Your task to perform on an android device: Open Chrome and go to settings Image 0: 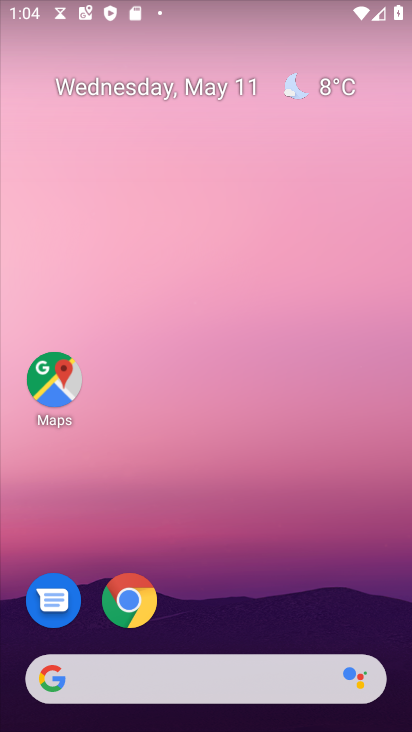
Step 0: click (136, 594)
Your task to perform on an android device: Open Chrome and go to settings Image 1: 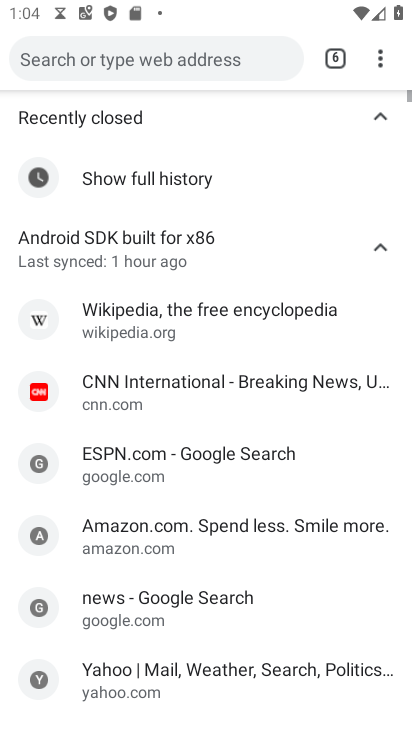
Step 1: click (377, 57)
Your task to perform on an android device: Open Chrome and go to settings Image 2: 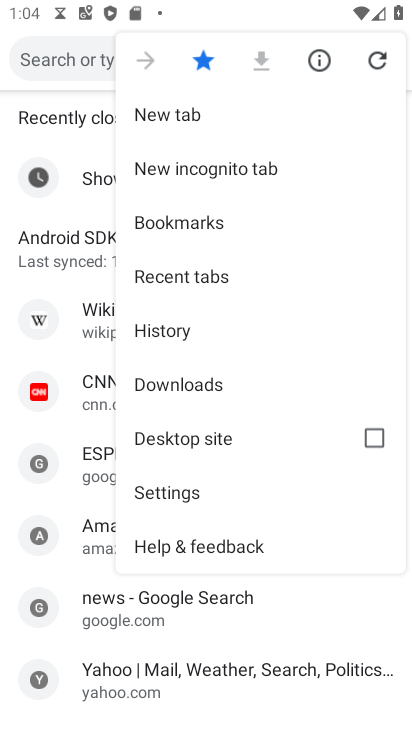
Step 2: drag from (276, 516) to (266, 405)
Your task to perform on an android device: Open Chrome and go to settings Image 3: 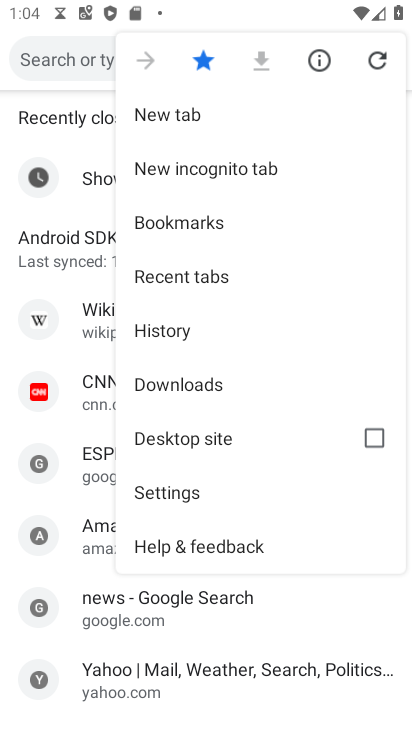
Step 3: click (204, 487)
Your task to perform on an android device: Open Chrome and go to settings Image 4: 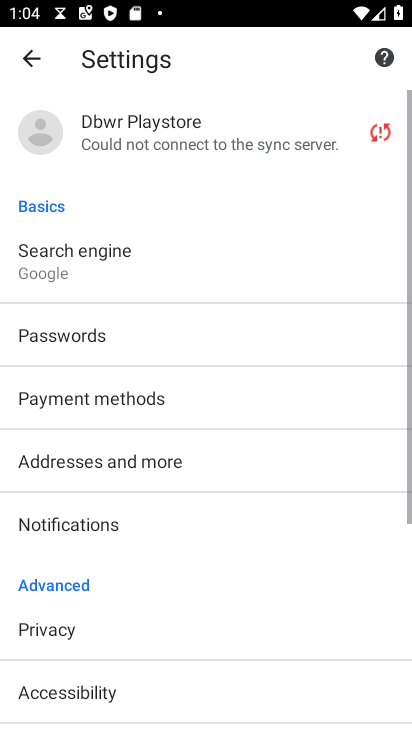
Step 4: task complete